Your task to perform on an android device: Open Android settings Image 0: 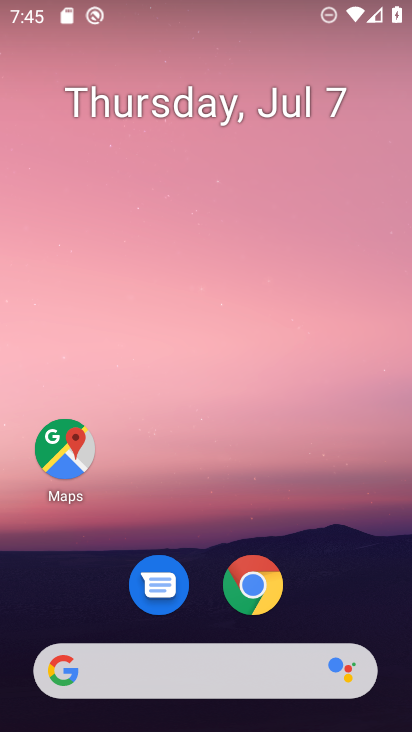
Step 0: drag from (225, 658) to (276, 43)
Your task to perform on an android device: Open Android settings Image 1: 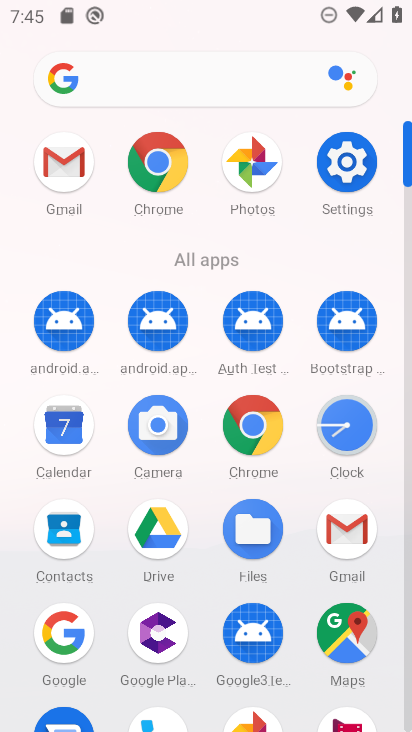
Step 1: click (339, 168)
Your task to perform on an android device: Open Android settings Image 2: 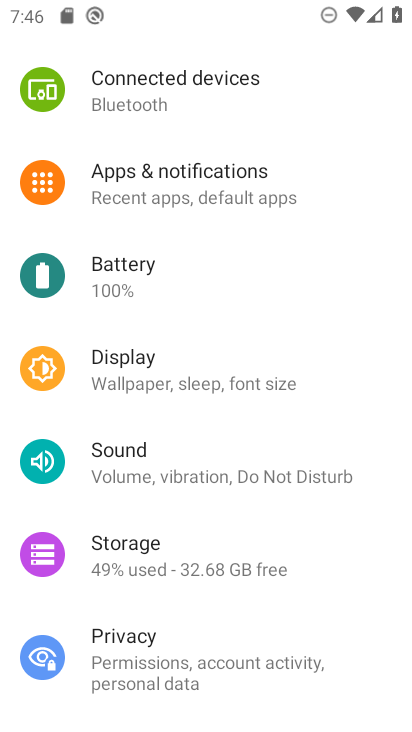
Step 2: task complete